Your task to perform on an android device: turn off improve location accuracy Image 0: 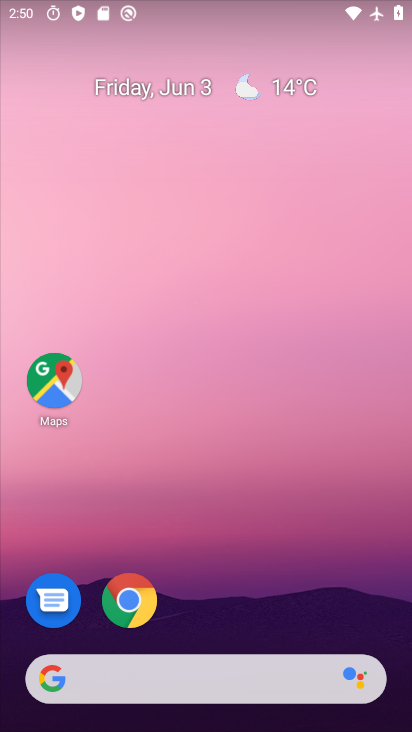
Step 0: drag from (237, 586) to (244, 70)
Your task to perform on an android device: turn off improve location accuracy Image 1: 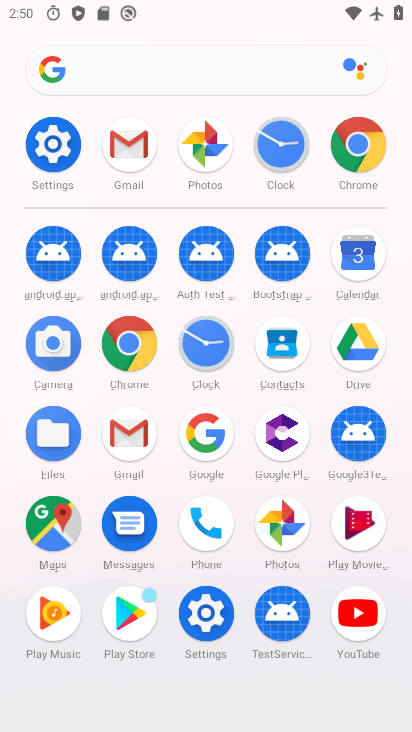
Step 1: click (204, 610)
Your task to perform on an android device: turn off improve location accuracy Image 2: 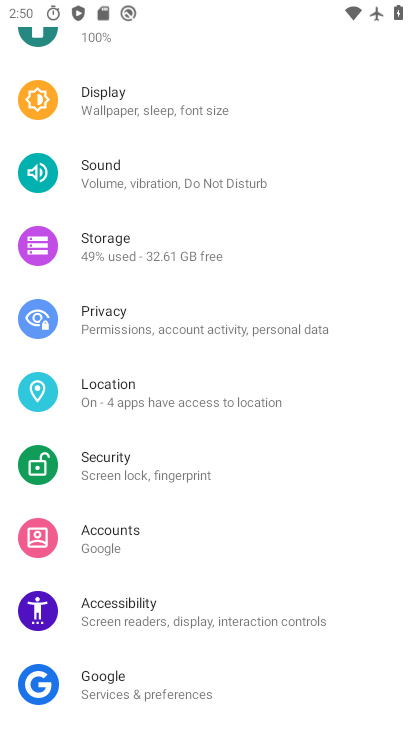
Step 2: click (137, 378)
Your task to perform on an android device: turn off improve location accuracy Image 3: 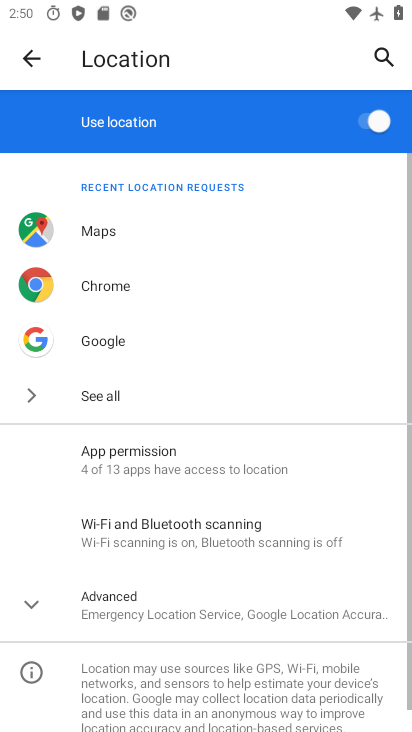
Step 3: click (42, 609)
Your task to perform on an android device: turn off improve location accuracy Image 4: 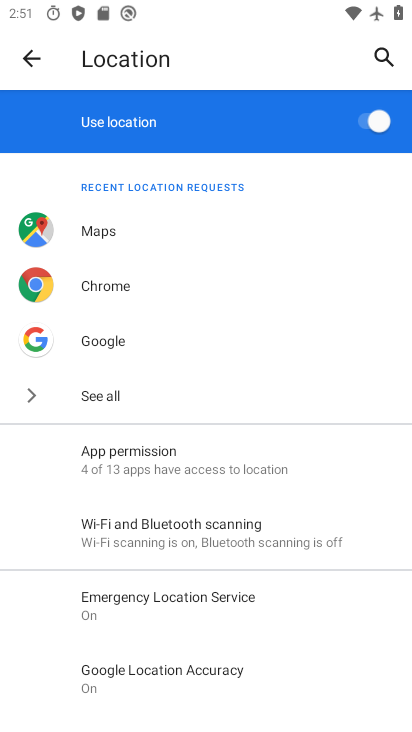
Step 4: click (260, 668)
Your task to perform on an android device: turn off improve location accuracy Image 5: 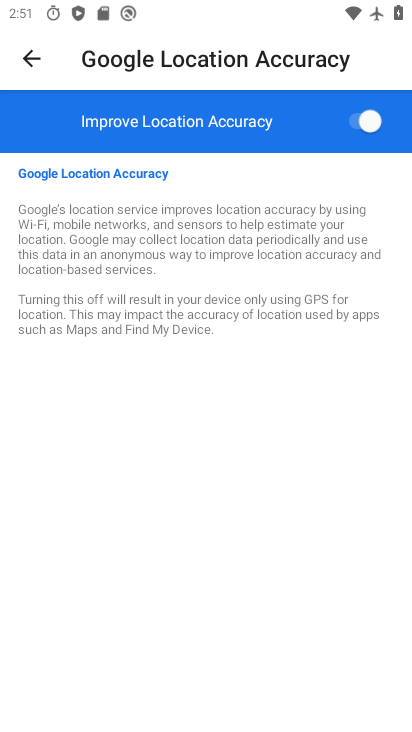
Step 5: click (352, 112)
Your task to perform on an android device: turn off improve location accuracy Image 6: 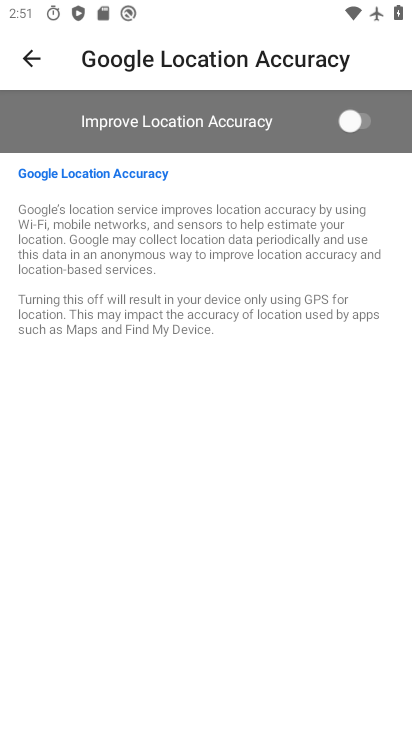
Step 6: task complete